Your task to perform on an android device: open a bookmark in the chrome app Image 0: 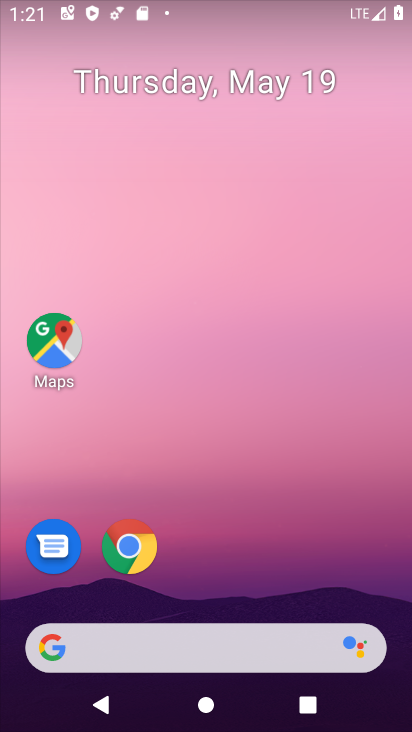
Step 0: click (126, 543)
Your task to perform on an android device: open a bookmark in the chrome app Image 1: 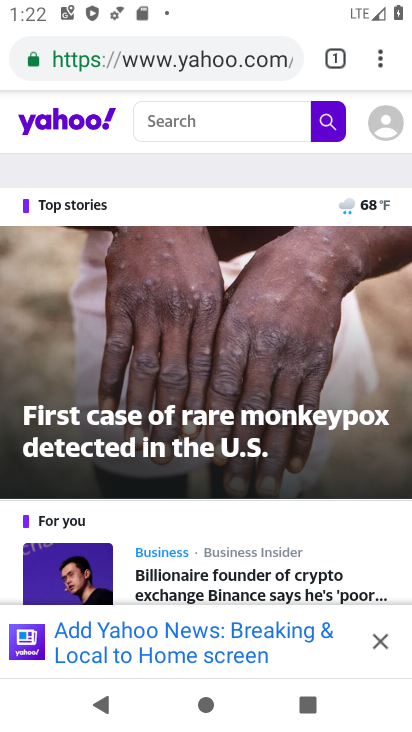
Step 1: click (367, 58)
Your task to perform on an android device: open a bookmark in the chrome app Image 2: 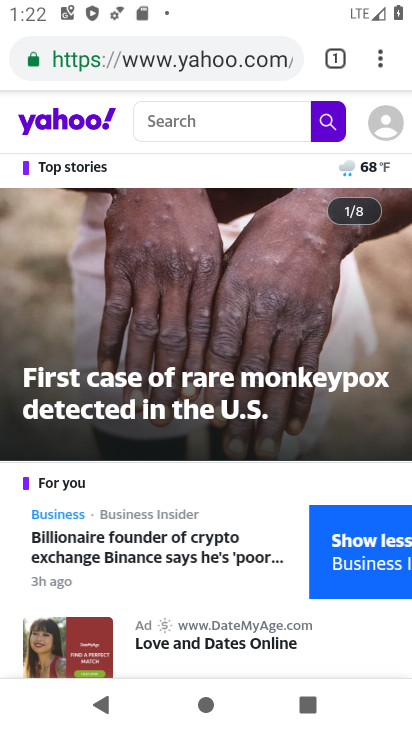
Step 2: click (369, 45)
Your task to perform on an android device: open a bookmark in the chrome app Image 3: 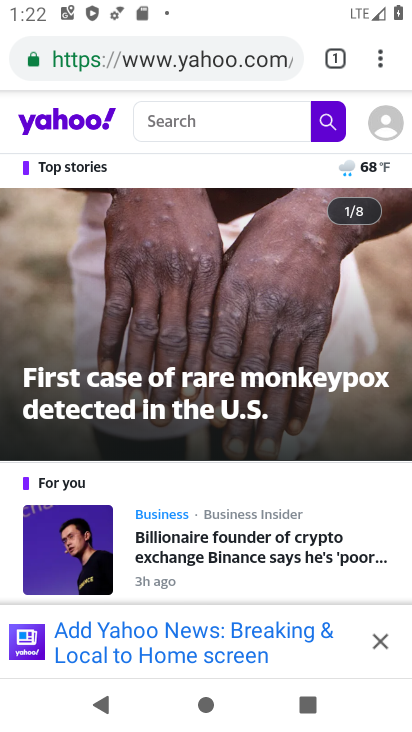
Step 3: click (373, 54)
Your task to perform on an android device: open a bookmark in the chrome app Image 4: 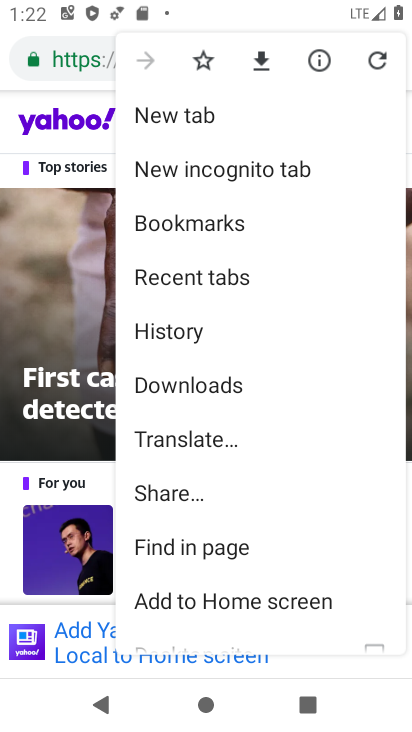
Step 4: click (199, 238)
Your task to perform on an android device: open a bookmark in the chrome app Image 5: 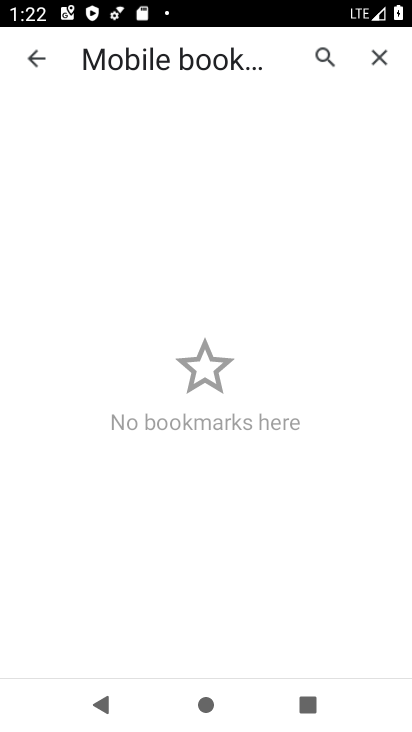
Step 5: task complete